Your task to perform on an android device: open sync settings in chrome Image 0: 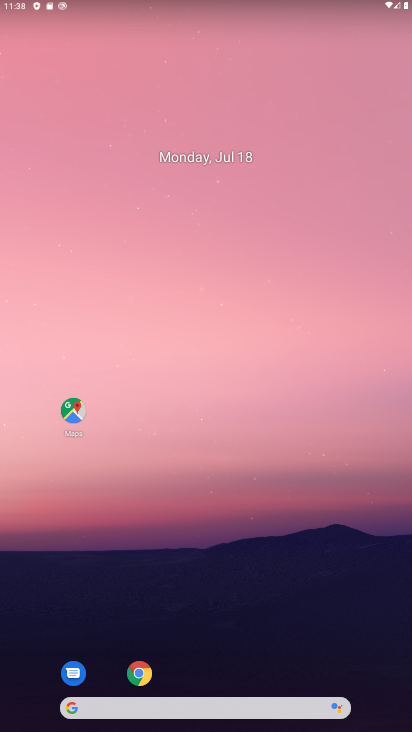
Step 0: click (143, 671)
Your task to perform on an android device: open sync settings in chrome Image 1: 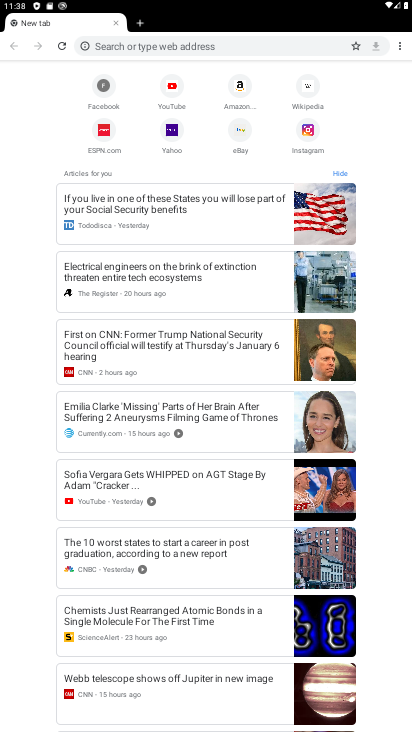
Step 1: click (401, 49)
Your task to perform on an android device: open sync settings in chrome Image 2: 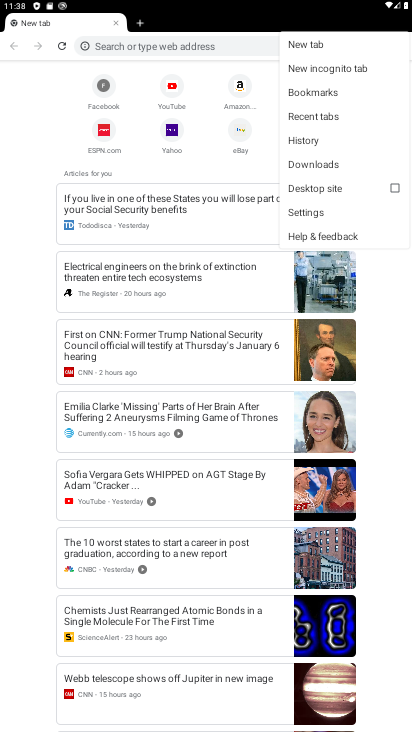
Step 2: click (335, 208)
Your task to perform on an android device: open sync settings in chrome Image 3: 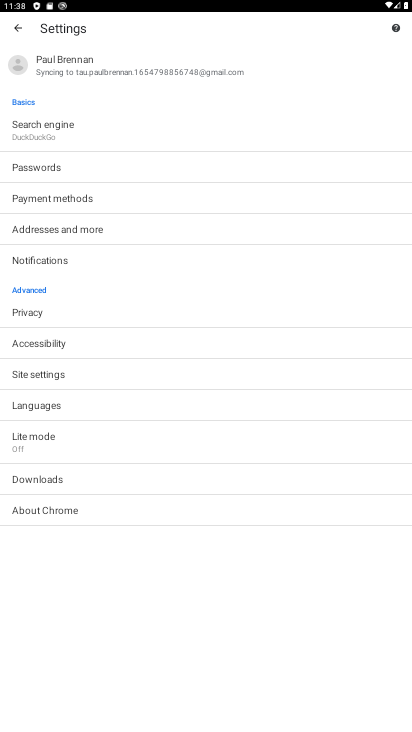
Step 3: click (106, 66)
Your task to perform on an android device: open sync settings in chrome Image 4: 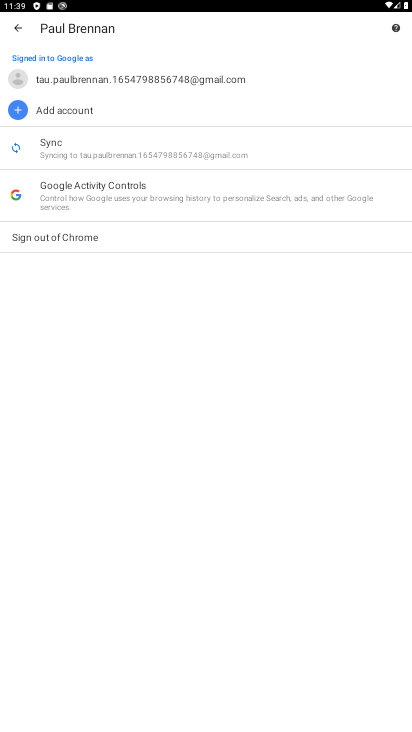
Step 4: click (120, 148)
Your task to perform on an android device: open sync settings in chrome Image 5: 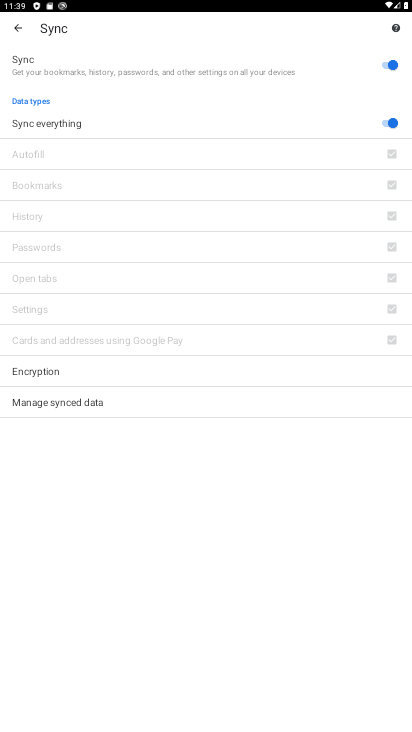
Step 5: task complete